Your task to perform on an android device: Go to wifi settings Image 0: 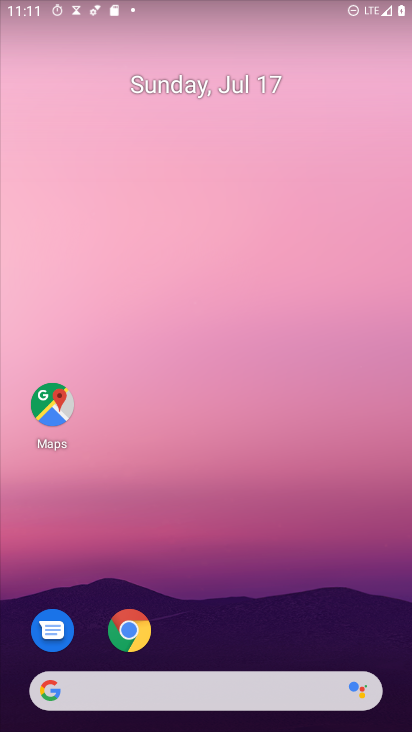
Step 0: drag from (223, 673) to (125, 147)
Your task to perform on an android device: Go to wifi settings Image 1: 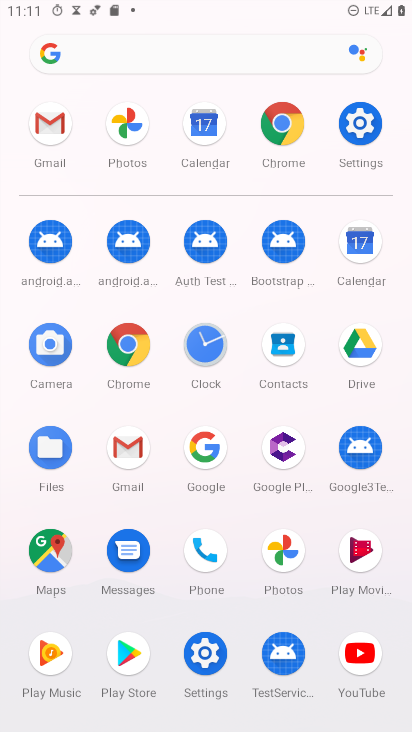
Step 1: click (350, 127)
Your task to perform on an android device: Go to wifi settings Image 2: 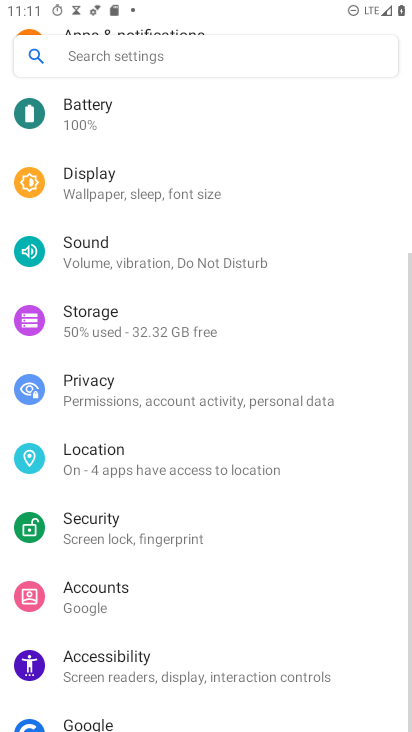
Step 2: drag from (145, 123) to (222, 615)
Your task to perform on an android device: Go to wifi settings Image 3: 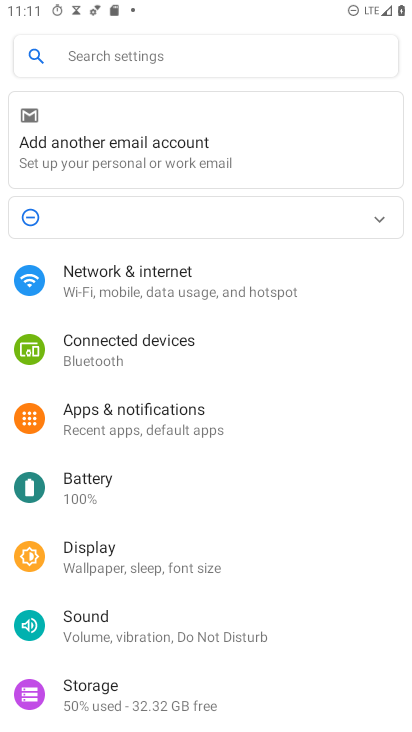
Step 3: click (189, 278)
Your task to perform on an android device: Go to wifi settings Image 4: 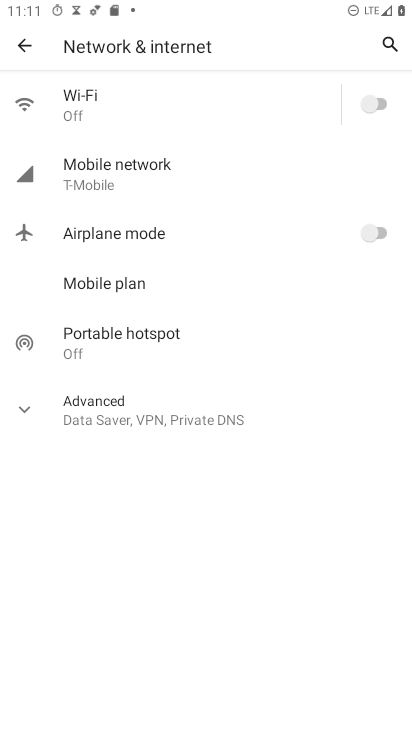
Step 4: click (156, 116)
Your task to perform on an android device: Go to wifi settings Image 5: 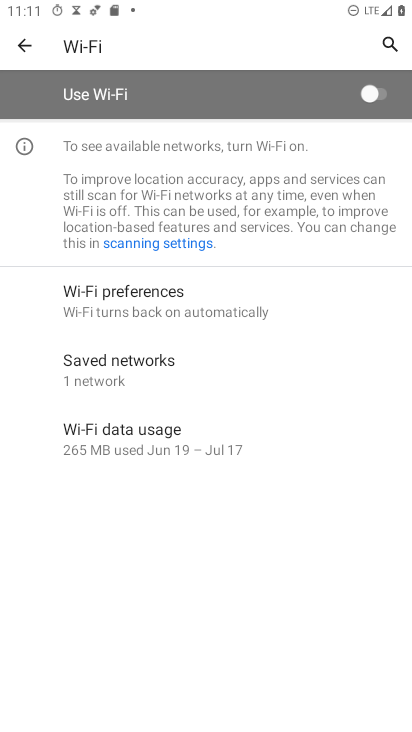
Step 5: task complete